Your task to perform on an android device: change timer sound Image 0: 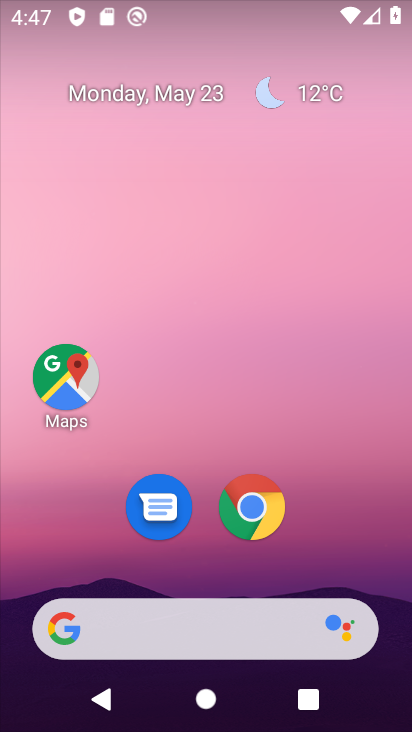
Step 0: drag from (58, 519) to (319, 26)
Your task to perform on an android device: change timer sound Image 1: 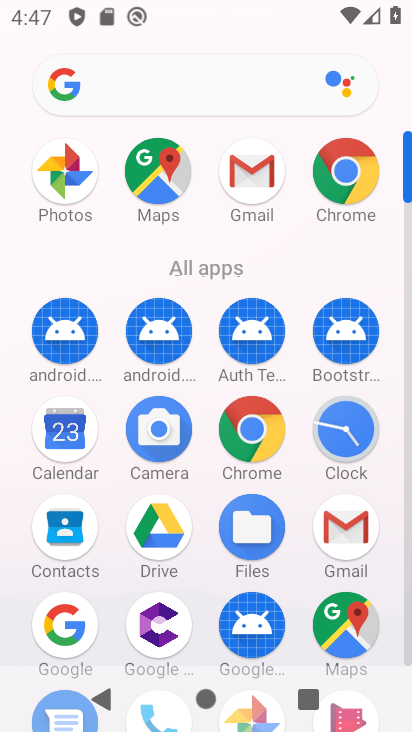
Step 1: click (332, 440)
Your task to perform on an android device: change timer sound Image 2: 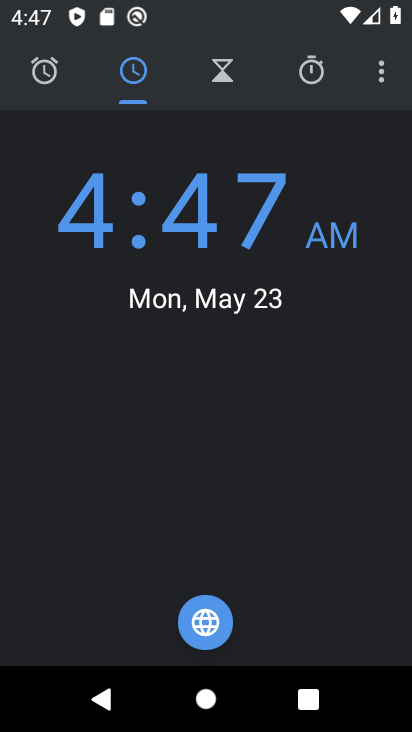
Step 2: click (383, 69)
Your task to perform on an android device: change timer sound Image 3: 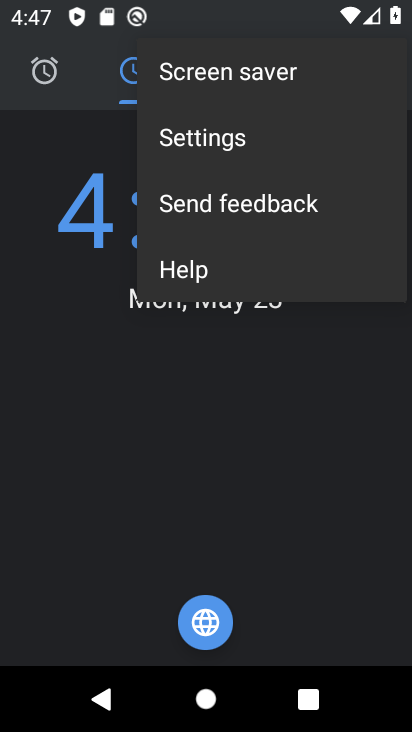
Step 3: click (218, 139)
Your task to perform on an android device: change timer sound Image 4: 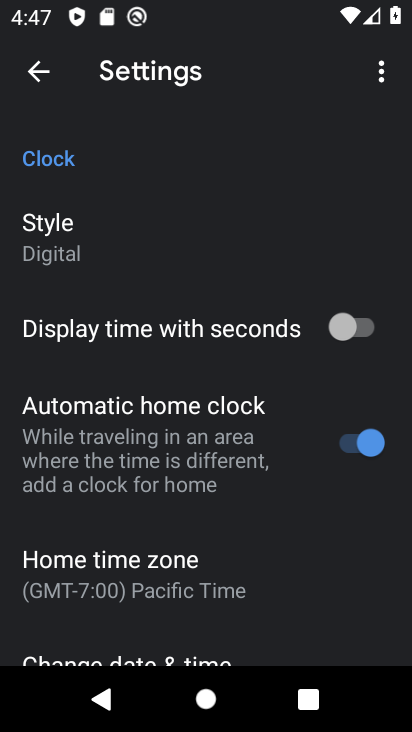
Step 4: drag from (16, 447) to (217, 130)
Your task to perform on an android device: change timer sound Image 5: 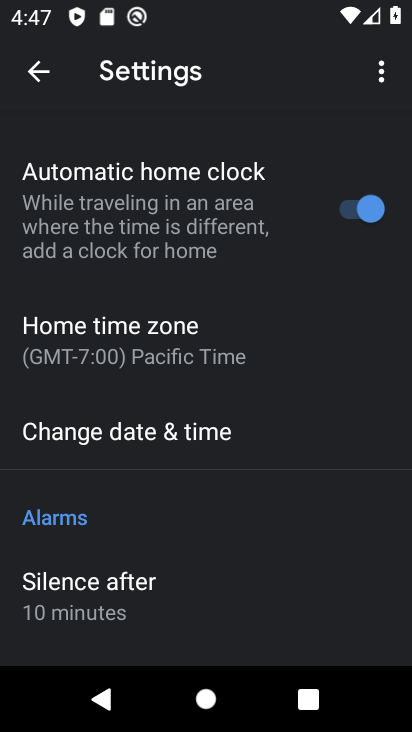
Step 5: drag from (68, 357) to (216, 127)
Your task to perform on an android device: change timer sound Image 6: 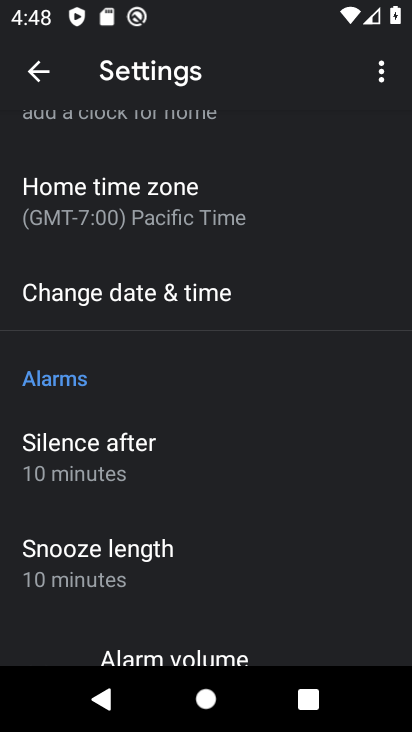
Step 6: drag from (52, 432) to (273, 82)
Your task to perform on an android device: change timer sound Image 7: 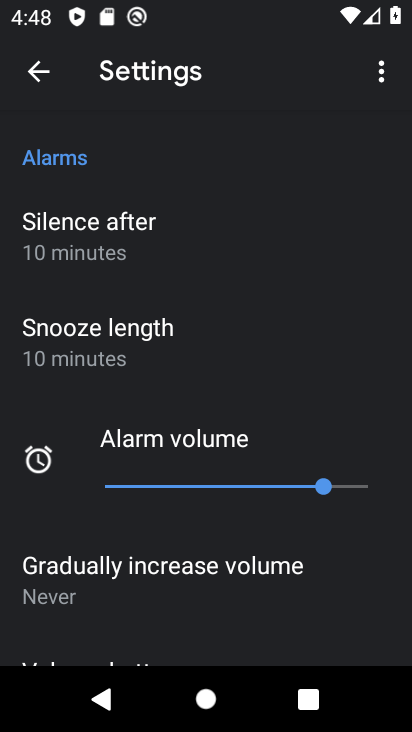
Step 7: drag from (197, 202) to (89, 602)
Your task to perform on an android device: change timer sound Image 8: 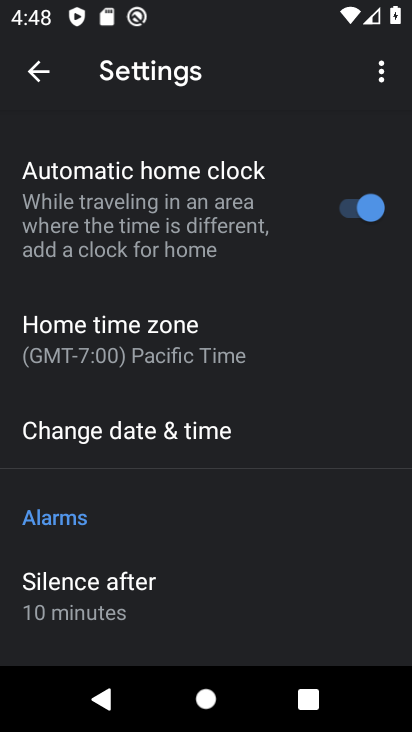
Step 8: drag from (253, 162) to (135, 609)
Your task to perform on an android device: change timer sound Image 9: 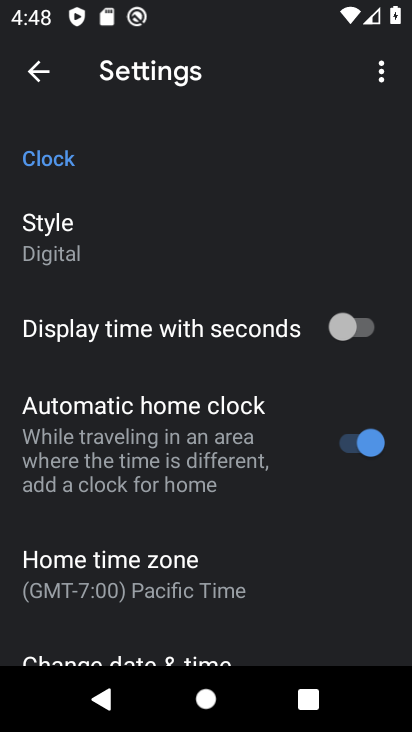
Step 9: drag from (24, 492) to (312, 39)
Your task to perform on an android device: change timer sound Image 10: 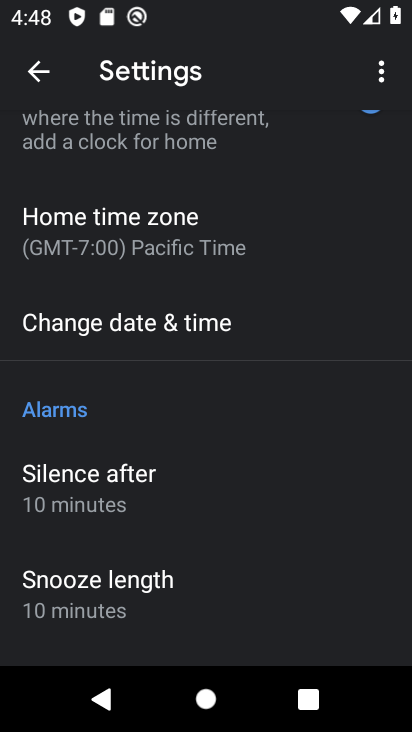
Step 10: drag from (44, 559) to (294, 79)
Your task to perform on an android device: change timer sound Image 11: 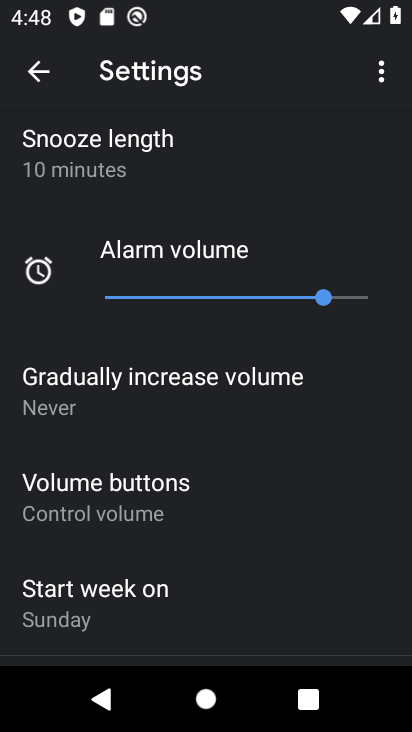
Step 11: drag from (64, 411) to (229, 116)
Your task to perform on an android device: change timer sound Image 12: 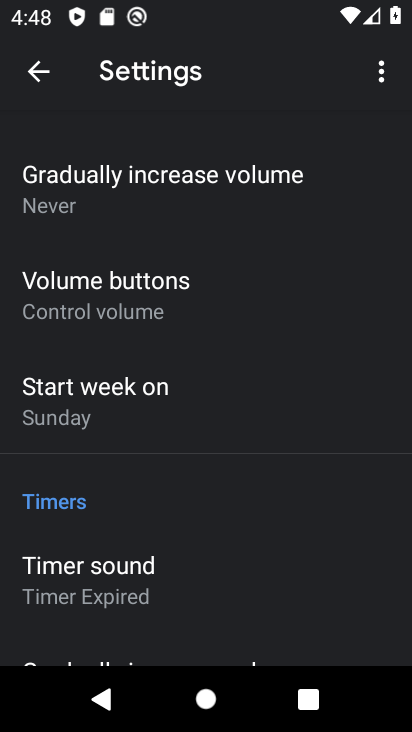
Step 12: click (73, 588)
Your task to perform on an android device: change timer sound Image 13: 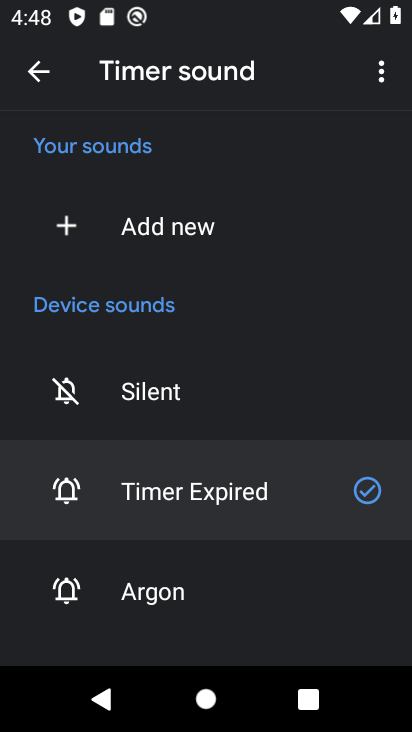
Step 13: click (96, 608)
Your task to perform on an android device: change timer sound Image 14: 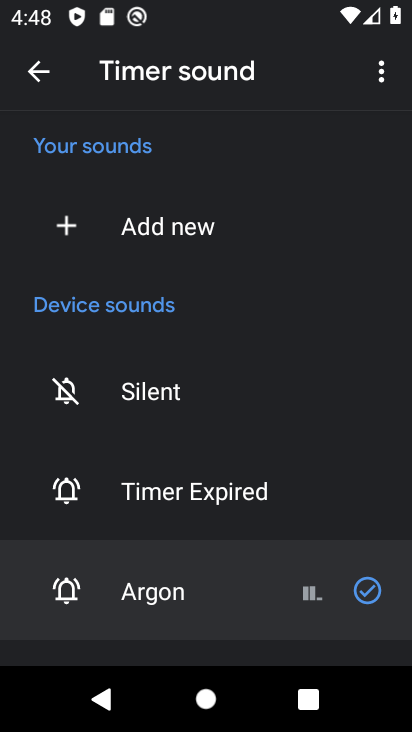
Step 14: task complete